Your task to perform on an android device: Go to Google maps Image 0: 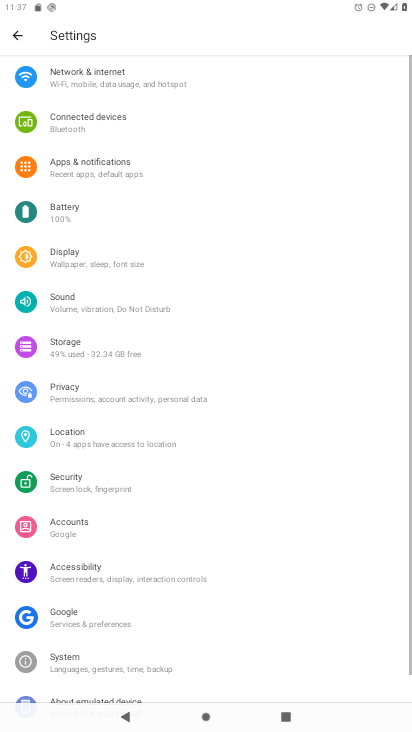
Step 0: press home button
Your task to perform on an android device: Go to Google maps Image 1: 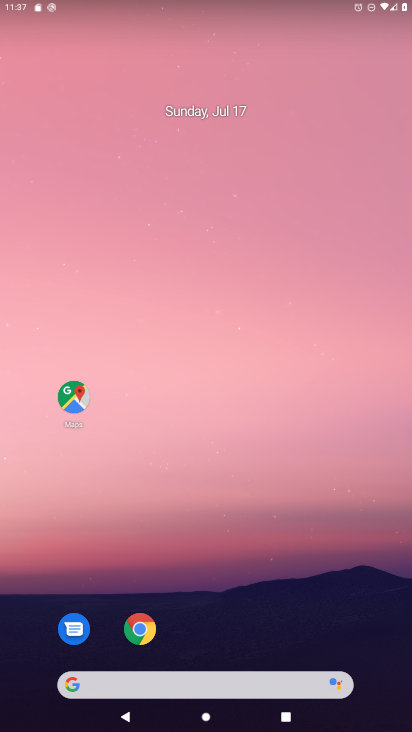
Step 1: click (72, 397)
Your task to perform on an android device: Go to Google maps Image 2: 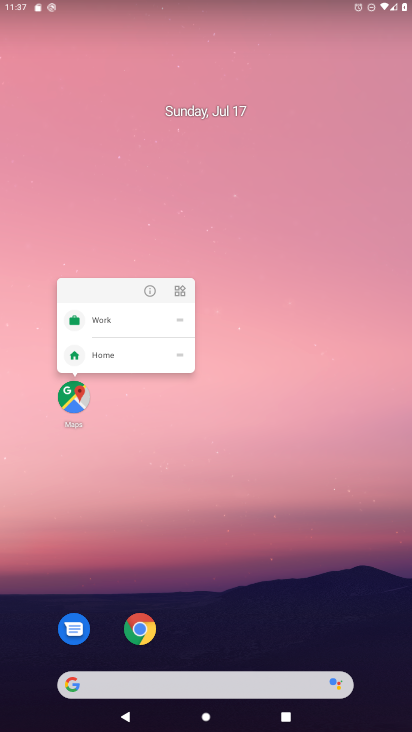
Step 2: click (72, 397)
Your task to perform on an android device: Go to Google maps Image 3: 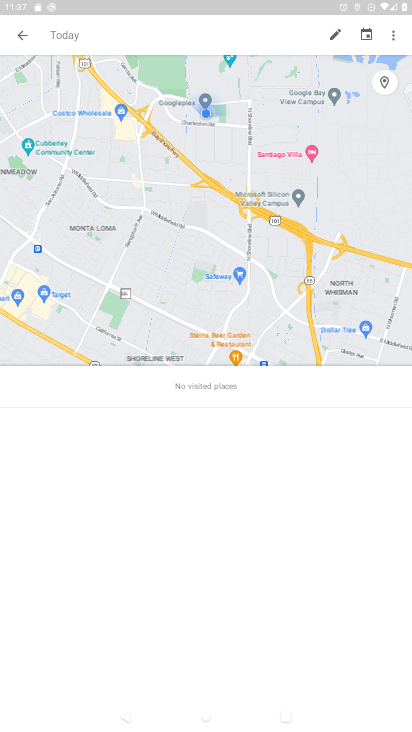
Step 3: task complete